Your task to perform on an android device: toggle translation in the chrome app Image 0: 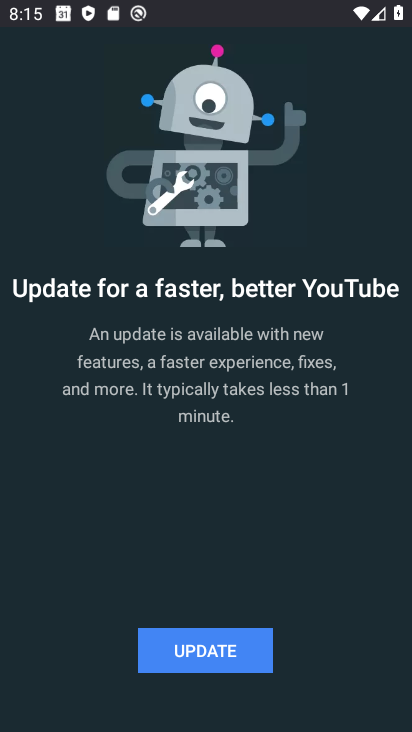
Step 0: press home button
Your task to perform on an android device: toggle translation in the chrome app Image 1: 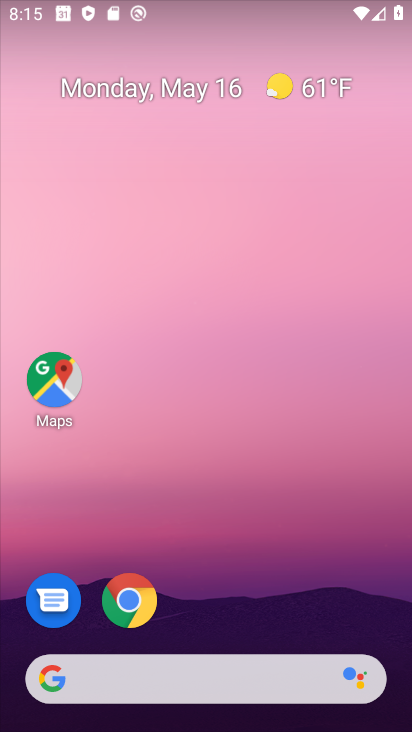
Step 1: click (136, 597)
Your task to perform on an android device: toggle translation in the chrome app Image 2: 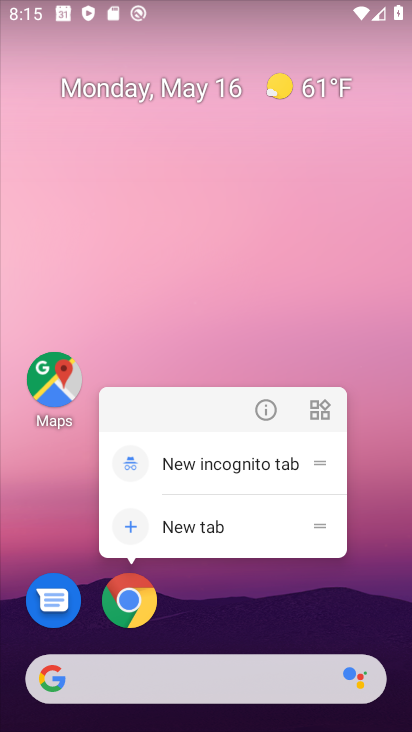
Step 2: click (139, 595)
Your task to perform on an android device: toggle translation in the chrome app Image 3: 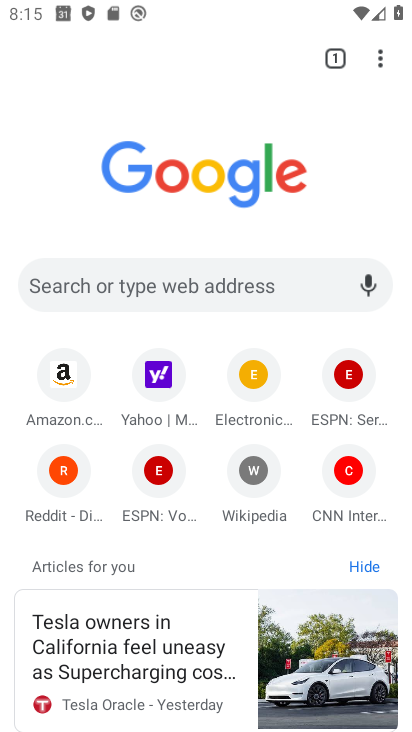
Step 3: click (373, 72)
Your task to perform on an android device: toggle translation in the chrome app Image 4: 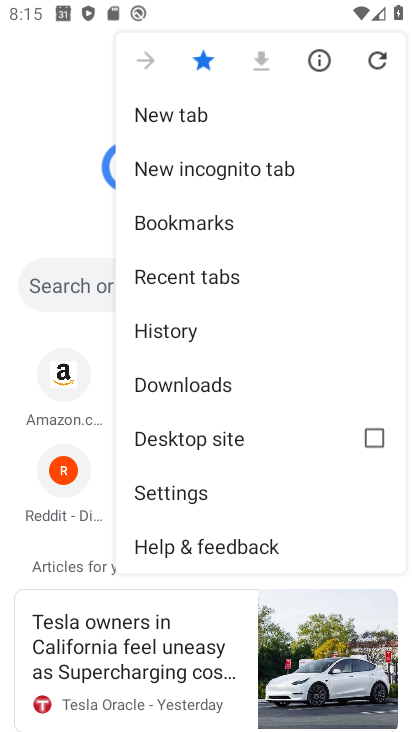
Step 4: click (170, 484)
Your task to perform on an android device: toggle translation in the chrome app Image 5: 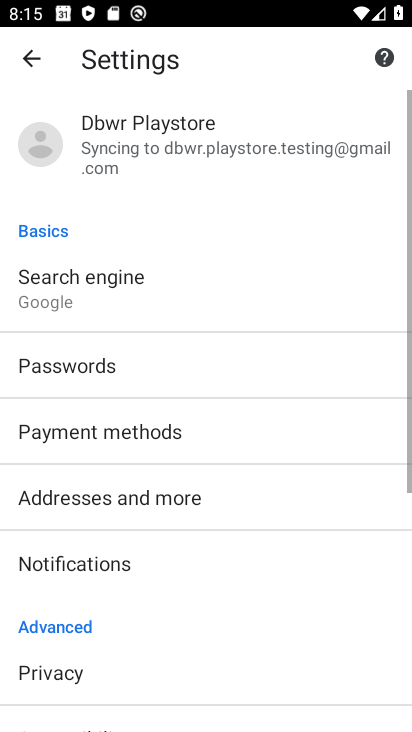
Step 5: drag from (116, 542) to (168, 344)
Your task to perform on an android device: toggle translation in the chrome app Image 6: 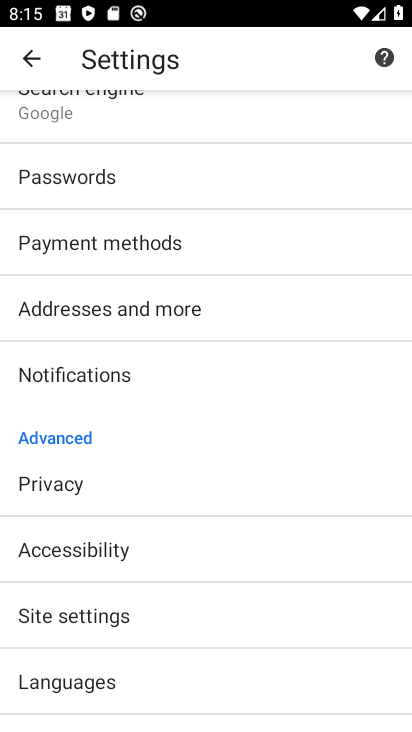
Step 6: click (84, 677)
Your task to perform on an android device: toggle translation in the chrome app Image 7: 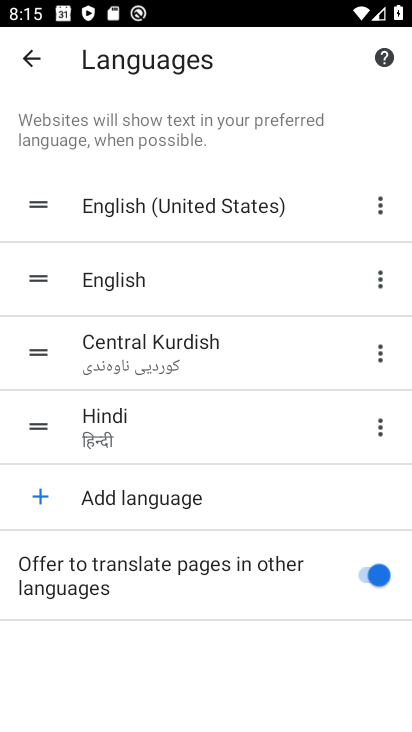
Step 7: click (370, 579)
Your task to perform on an android device: toggle translation in the chrome app Image 8: 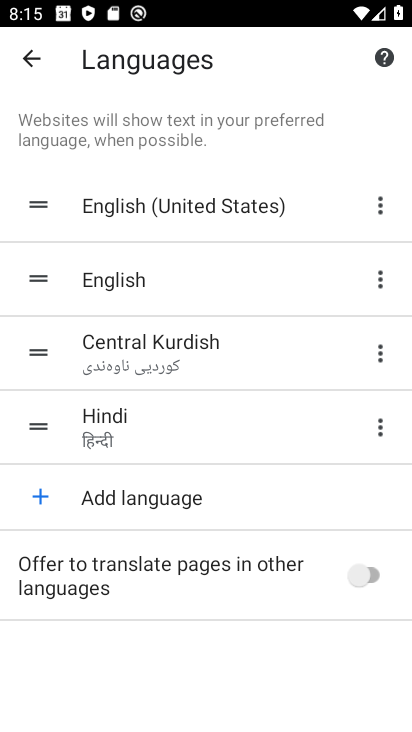
Step 8: task complete